Your task to perform on an android device: turn off data saver in the chrome app Image 0: 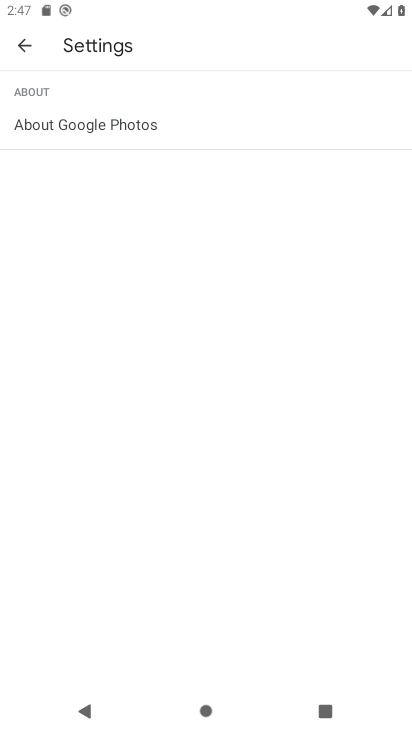
Step 0: press home button
Your task to perform on an android device: turn off data saver in the chrome app Image 1: 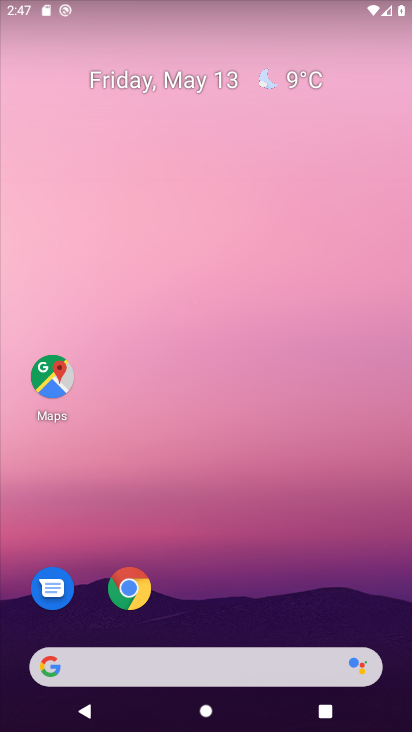
Step 1: click (133, 590)
Your task to perform on an android device: turn off data saver in the chrome app Image 2: 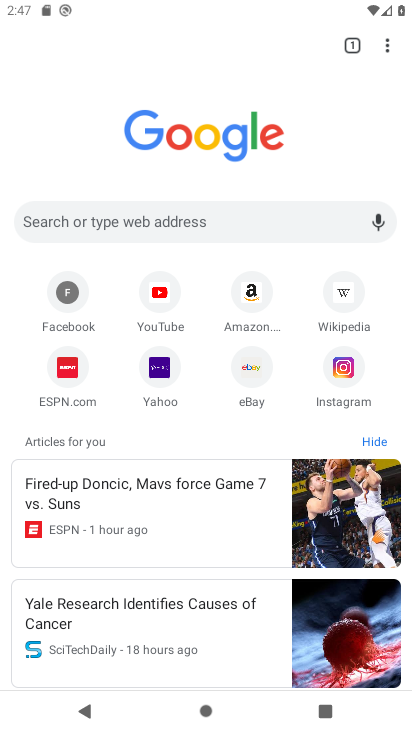
Step 2: click (392, 46)
Your task to perform on an android device: turn off data saver in the chrome app Image 3: 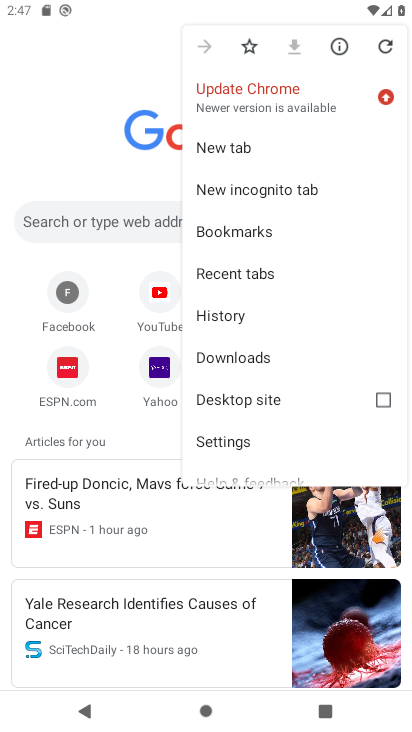
Step 3: click (263, 439)
Your task to perform on an android device: turn off data saver in the chrome app Image 4: 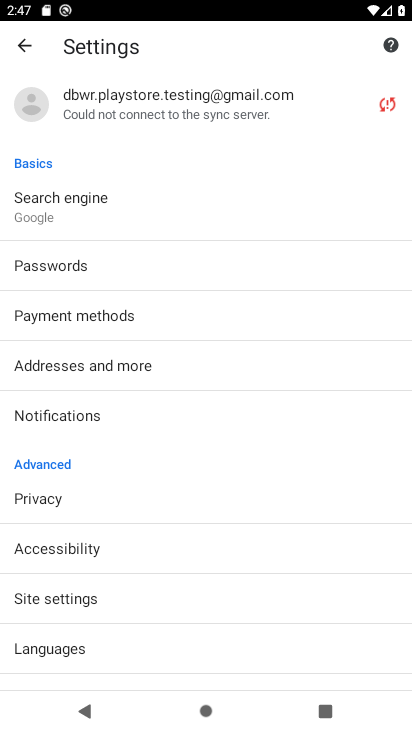
Step 4: drag from (120, 615) to (87, 469)
Your task to perform on an android device: turn off data saver in the chrome app Image 5: 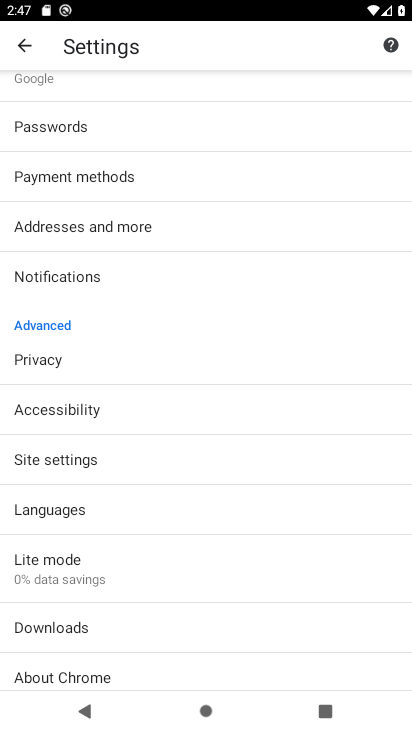
Step 5: click (98, 574)
Your task to perform on an android device: turn off data saver in the chrome app Image 6: 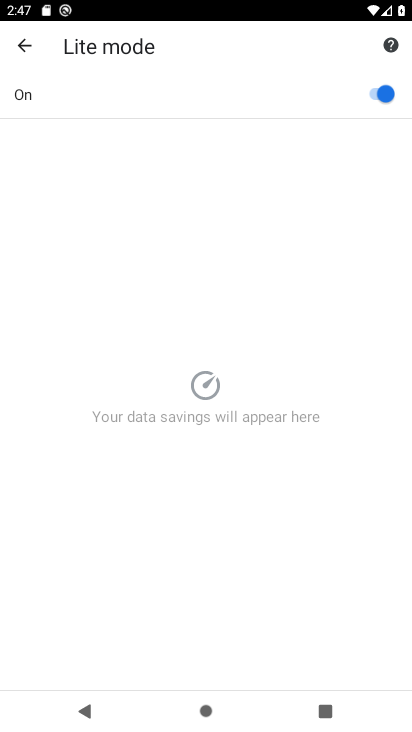
Step 6: click (376, 93)
Your task to perform on an android device: turn off data saver in the chrome app Image 7: 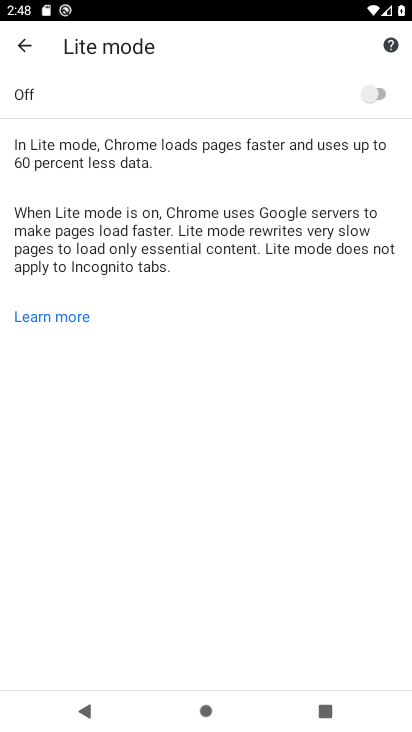
Step 7: task complete